Your task to perform on an android device: check storage Image 0: 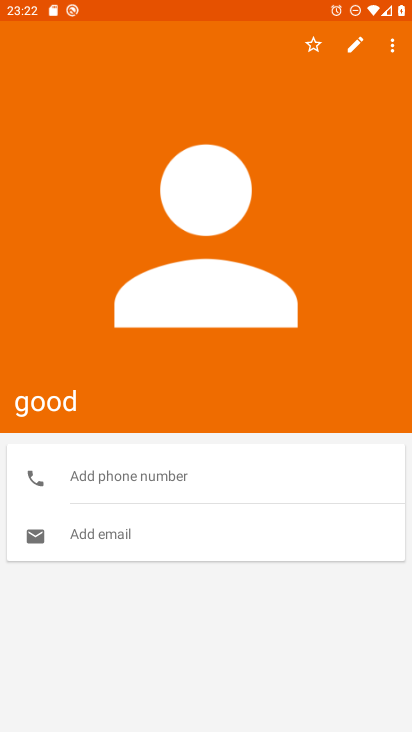
Step 0: press home button
Your task to perform on an android device: check storage Image 1: 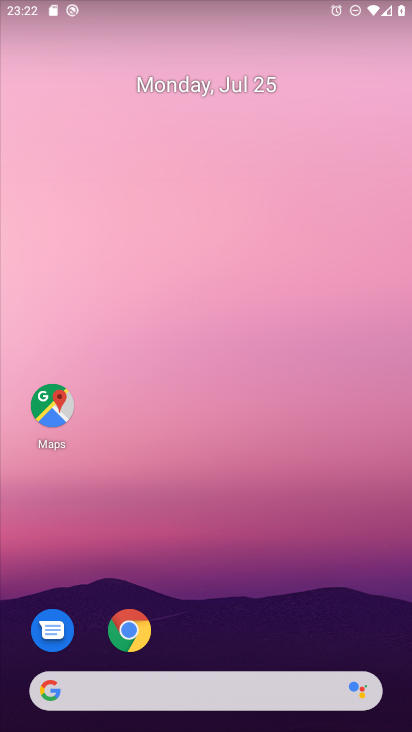
Step 1: drag from (301, 600) to (223, 76)
Your task to perform on an android device: check storage Image 2: 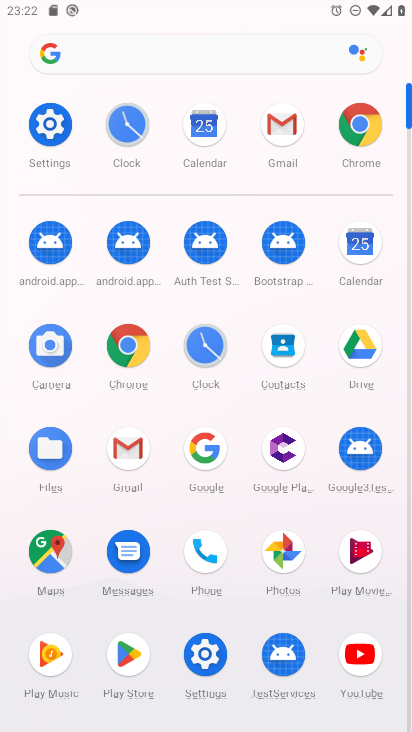
Step 2: click (65, 116)
Your task to perform on an android device: check storage Image 3: 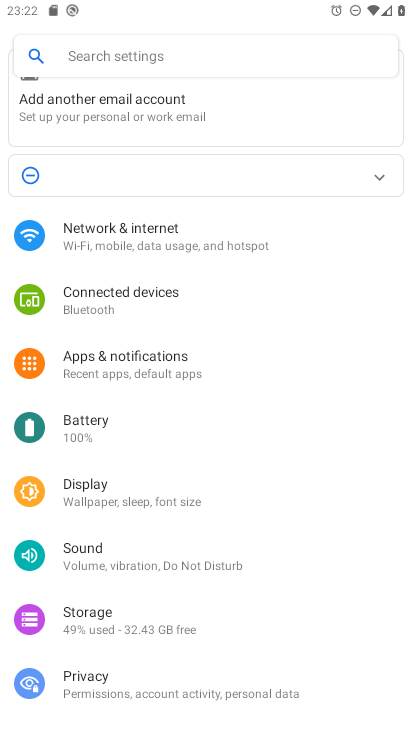
Step 3: click (161, 622)
Your task to perform on an android device: check storage Image 4: 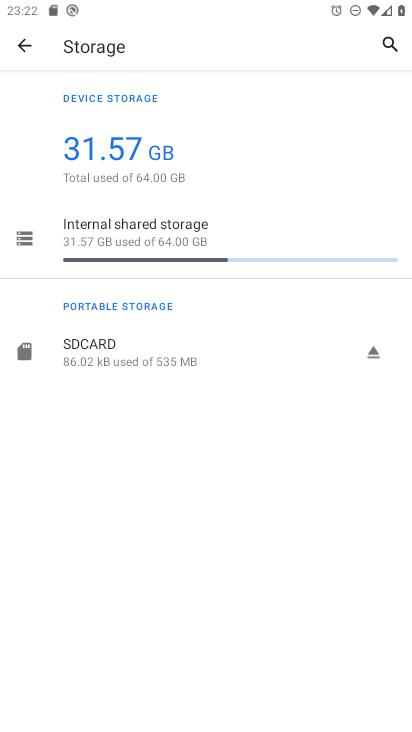
Step 4: task complete